Your task to perform on an android device: Open wifi settings Image 0: 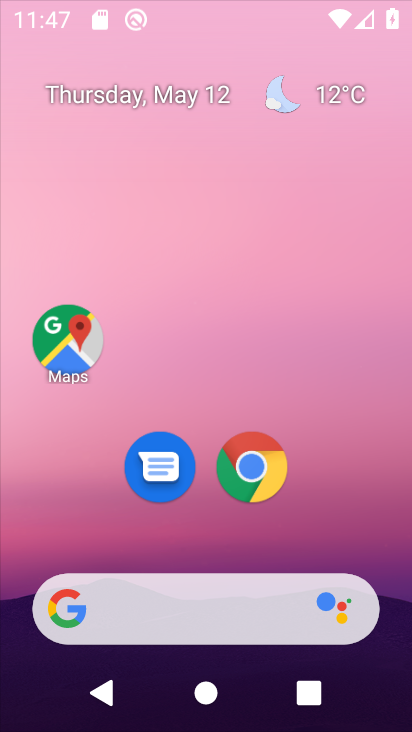
Step 0: click (249, 469)
Your task to perform on an android device: Open wifi settings Image 1: 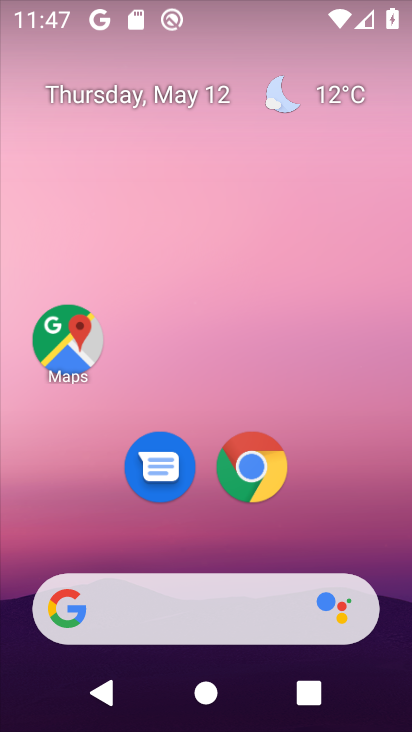
Step 1: click (263, 463)
Your task to perform on an android device: Open wifi settings Image 2: 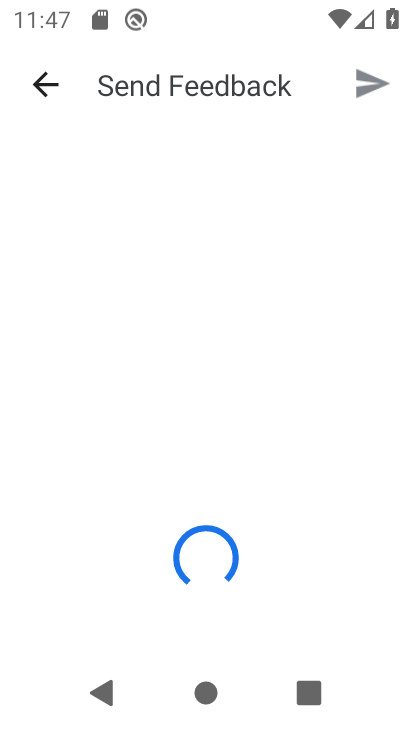
Step 2: press home button
Your task to perform on an android device: Open wifi settings Image 3: 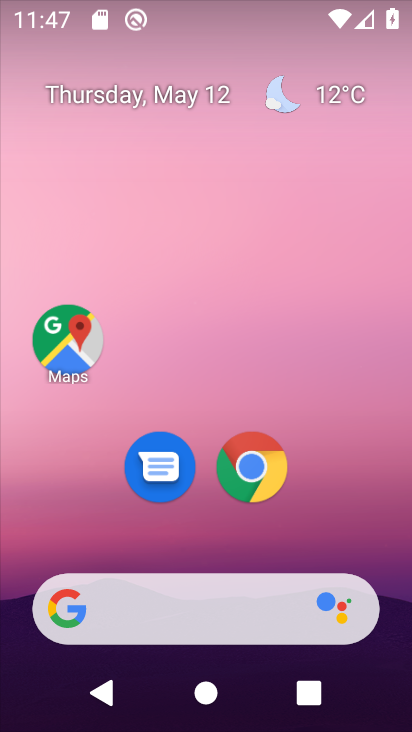
Step 3: drag from (364, 532) to (235, 16)
Your task to perform on an android device: Open wifi settings Image 4: 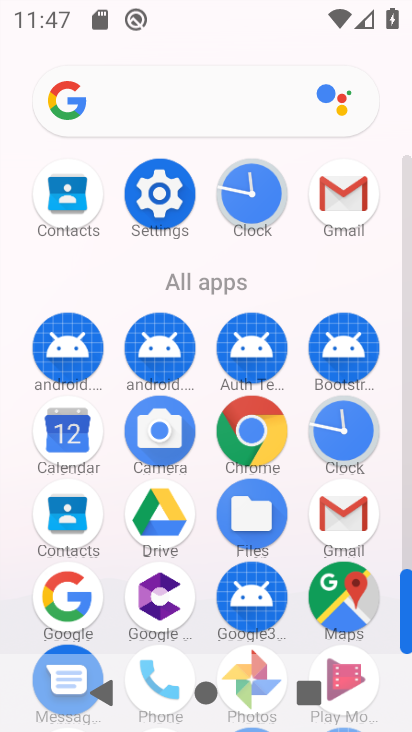
Step 4: click (181, 184)
Your task to perform on an android device: Open wifi settings Image 5: 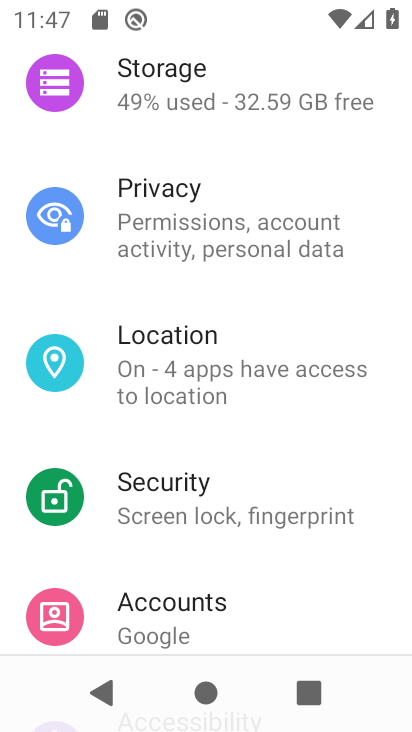
Step 5: drag from (216, 388) to (195, 728)
Your task to perform on an android device: Open wifi settings Image 6: 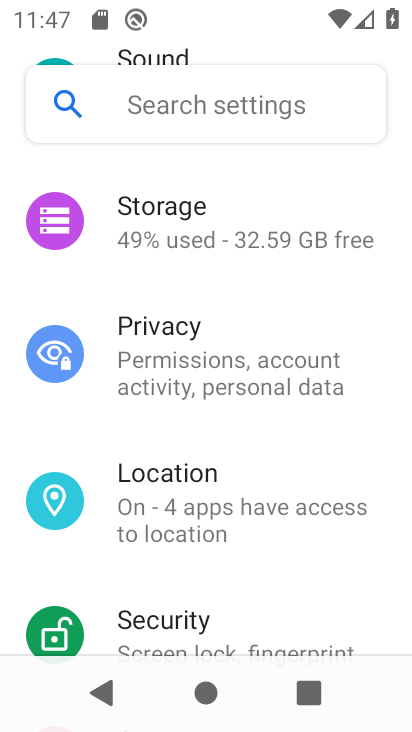
Step 6: drag from (257, 202) to (195, 695)
Your task to perform on an android device: Open wifi settings Image 7: 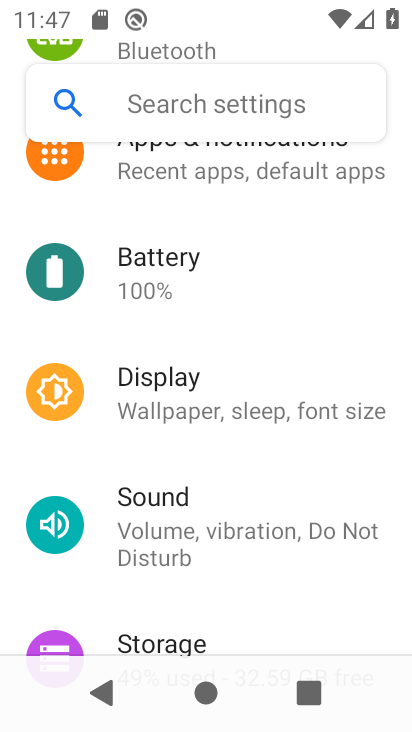
Step 7: drag from (235, 258) to (209, 674)
Your task to perform on an android device: Open wifi settings Image 8: 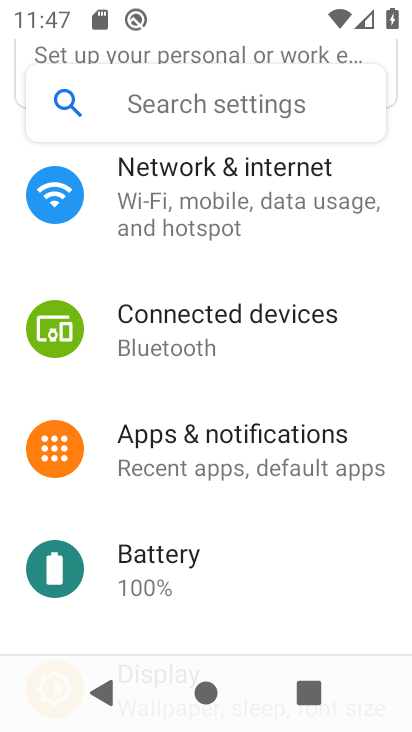
Step 8: click (210, 213)
Your task to perform on an android device: Open wifi settings Image 9: 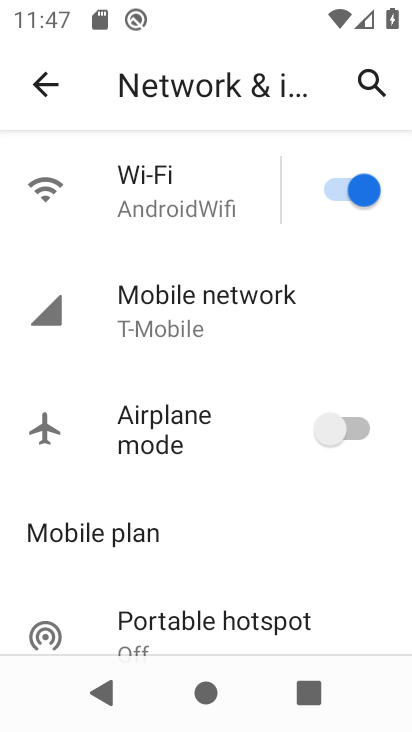
Step 9: click (192, 176)
Your task to perform on an android device: Open wifi settings Image 10: 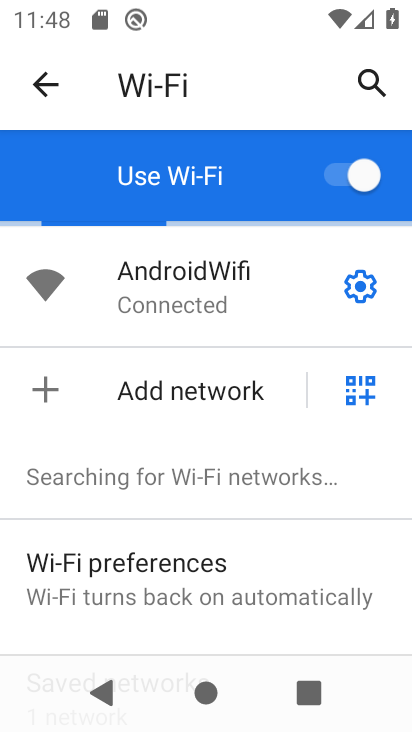
Step 10: task complete